Your task to perform on an android device: Go to display settings Image 0: 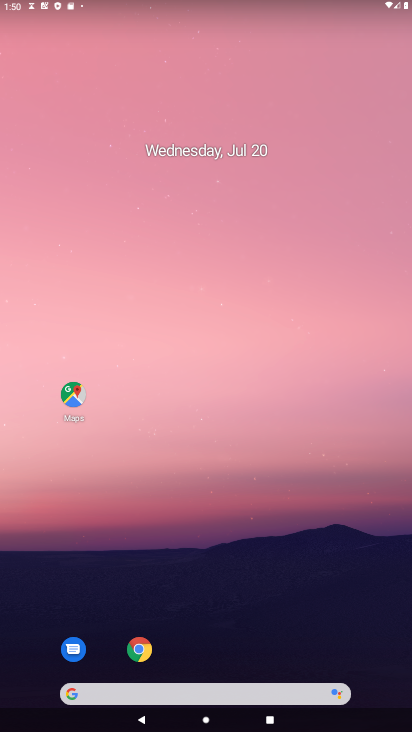
Step 0: drag from (261, 653) to (304, 141)
Your task to perform on an android device: Go to display settings Image 1: 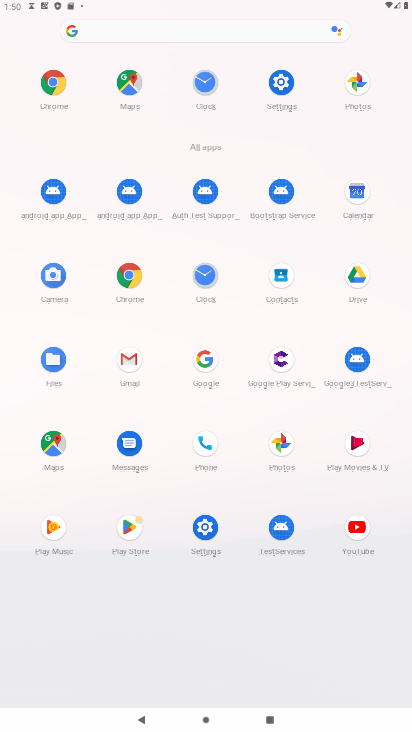
Step 1: click (289, 75)
Your task to perform on an android device: Go to display settings Image 2: 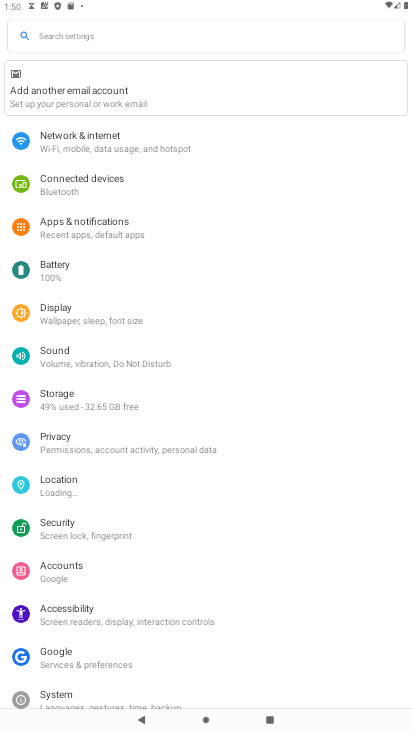
Step 2: click (130, 319)
Your task to perform on an android device: Go to display settings Image 3: 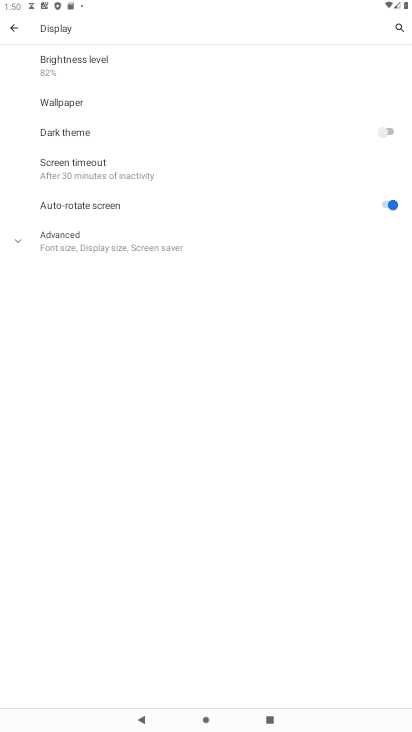
Step 3: task complete